Your task to perform on an android device: toggle javascript in the chrome app Image 0: 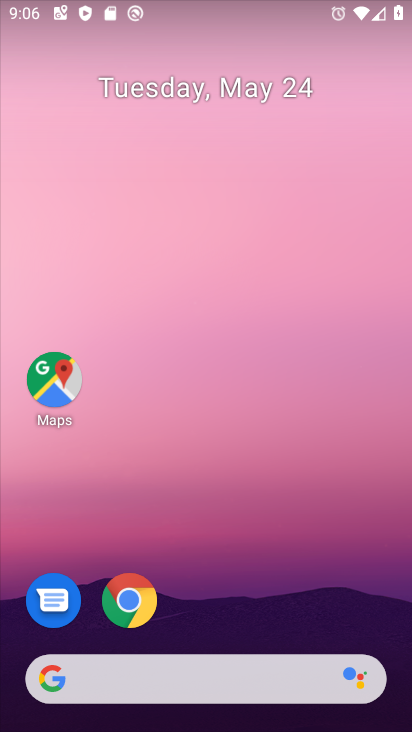
Step 0: click (125, 603)
Your task to perform on an android device: toggle javascript in the chrome app Image 1: 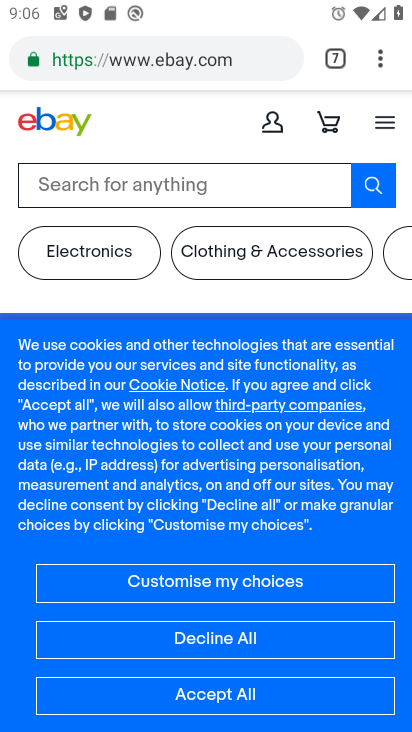
Step 1: click (379, 66)
Your task to perform on an android device: toggle javascript in the chrome app Image 2: 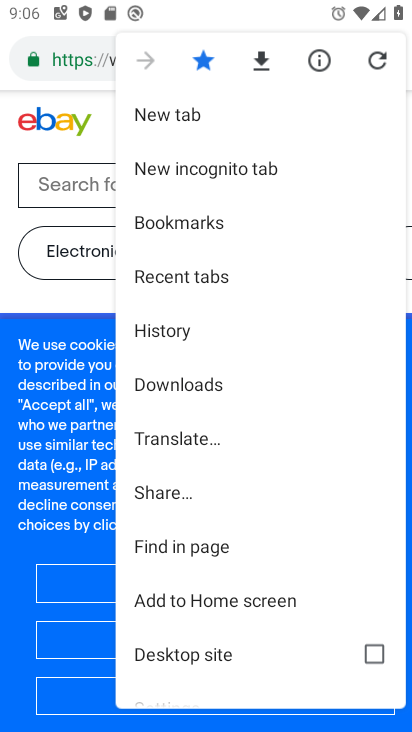
Step 2: drag from (178, 532) to (184, 228)
Your task to perform on an android device: toggle javascript in the chrome app Image 3: 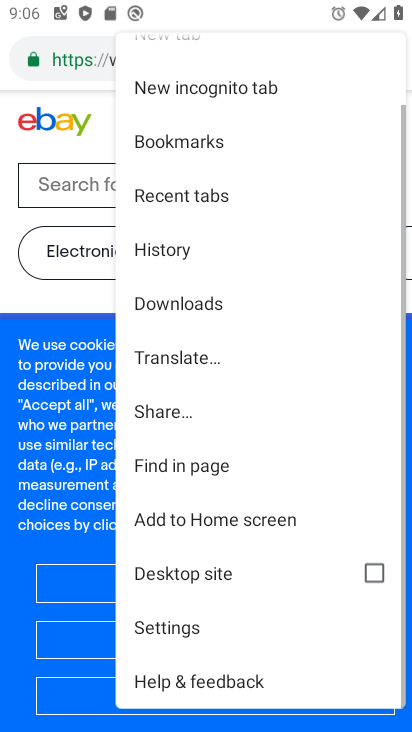
Step 3: click (191, 622)
Your task to perform on an android device: toggle javascript in the chrome app Image 4: 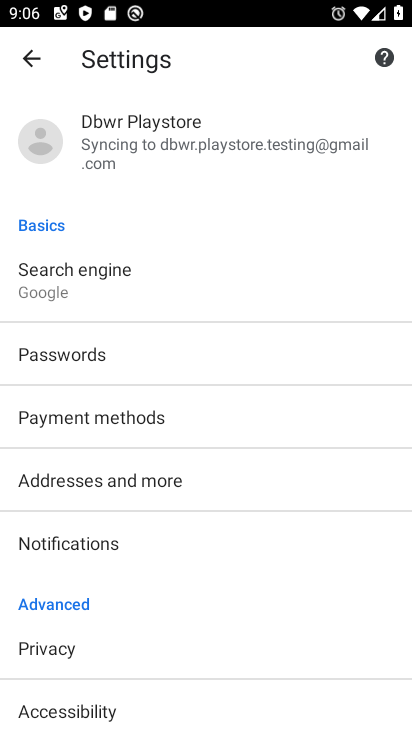
Step 4: drag from (151, 616) to (161, 237)
Your task to perform on an android device: toggle javascript in the chrome app Image 5: 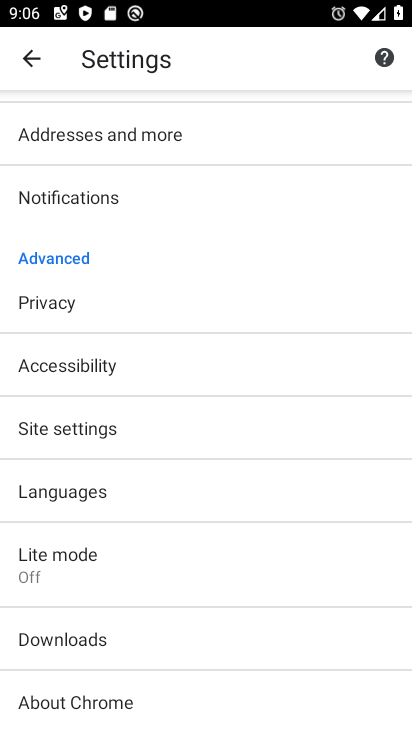
Step 5: click (81, 422)
Your task to perform on an android device: toggle javascript in the chrome app Image 6: 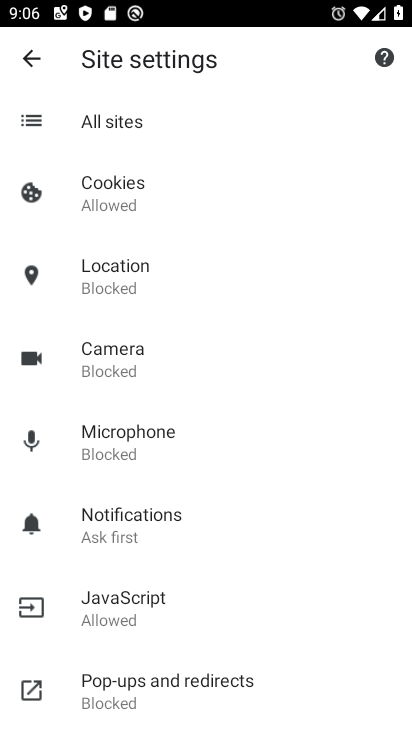
Step 6: click (118, 607)
Your task to perform on an android device: toggle javascript in the chrome app Image 7: 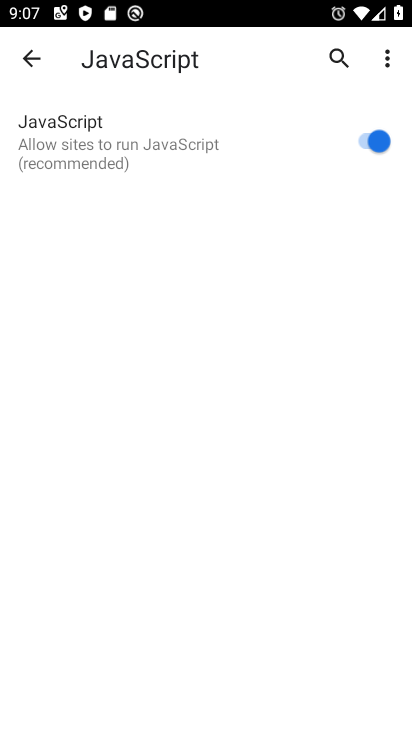
Step 7: click (360, 139)
Your task to perform on an android device: toggle javascript in the chrome app Image 8: 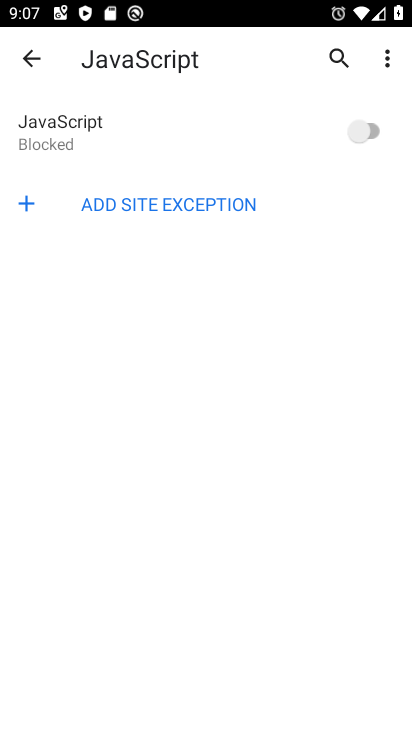
Step 8: task complete